Your task to perform on an android device: star an email in the gmail app Image 0: 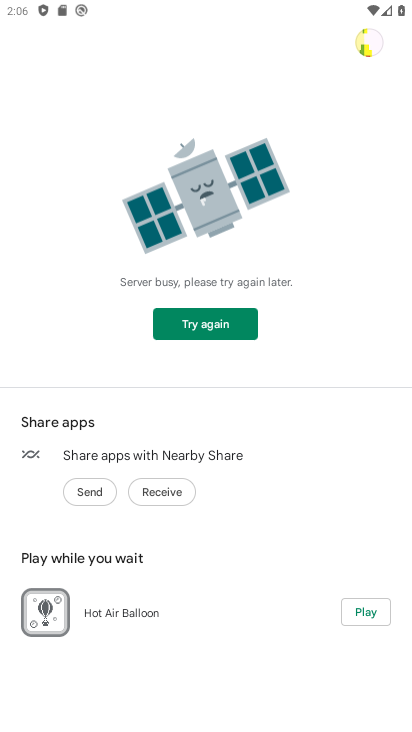
Step 0: press home button
Your task to perform on an android device: star an email in the gmail app Image 1: 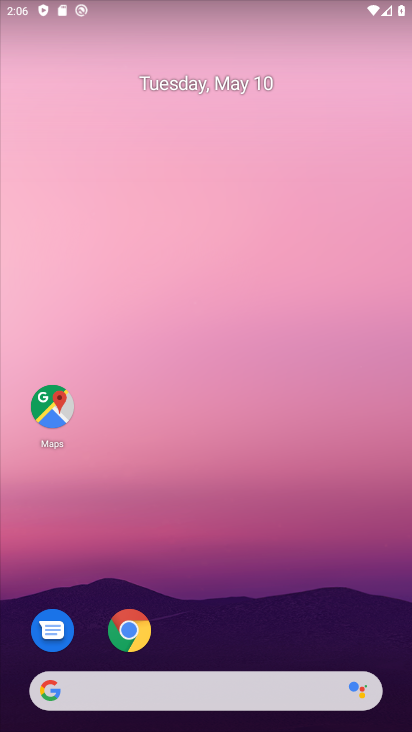
Step 1: drag from (255, 637) to (309, 77)
Your task to perform on an android device: star an email in the gmail app Image 2: 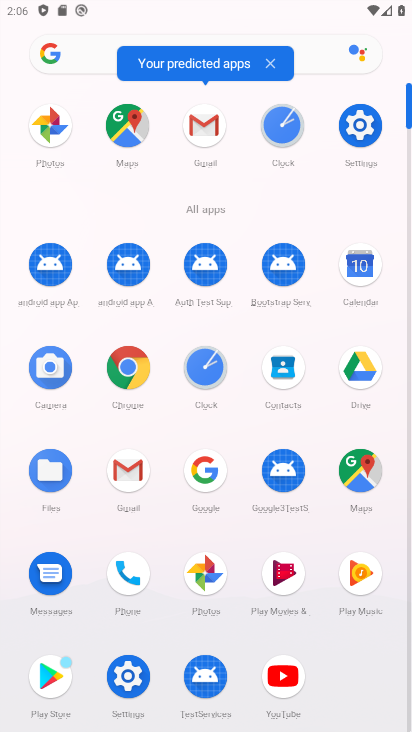
Step 2: drag from (122, 467) to (51, 215)
Your task to perform on an android device: star an email in the gmail app Image 3: 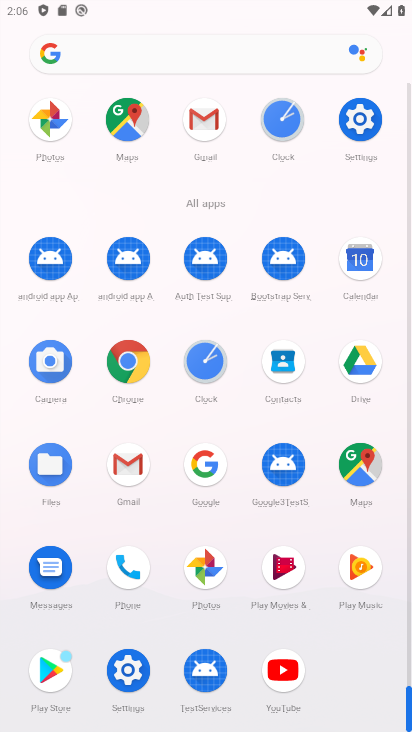
Step 3: drag from (118, 450) to (52, 169)
Your task to perform on an android device: star an email in the gmail app Image 4: 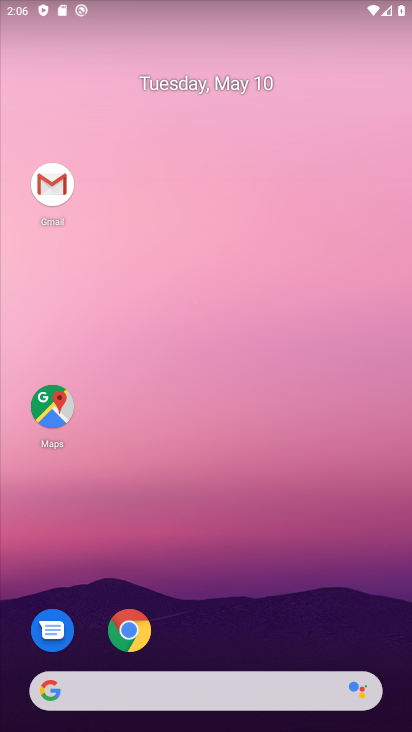
Step 4: click (49, 182)
Your task to perform on an android device: star an email in the gmail app Image 5: 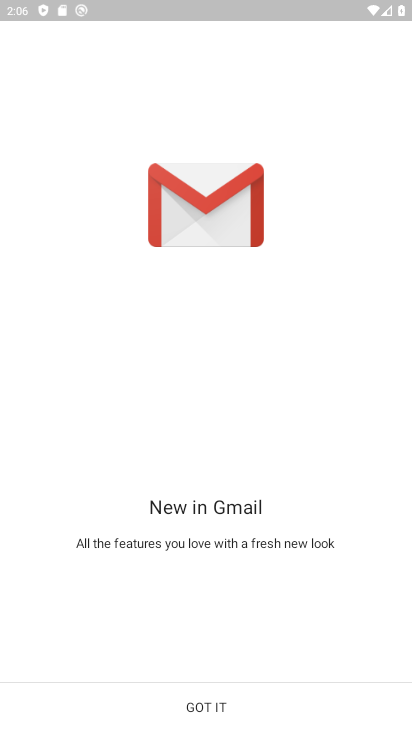
Step 5: click (221, 696)
Your task to perform on an android device: star an email in the gmail app Image 6: 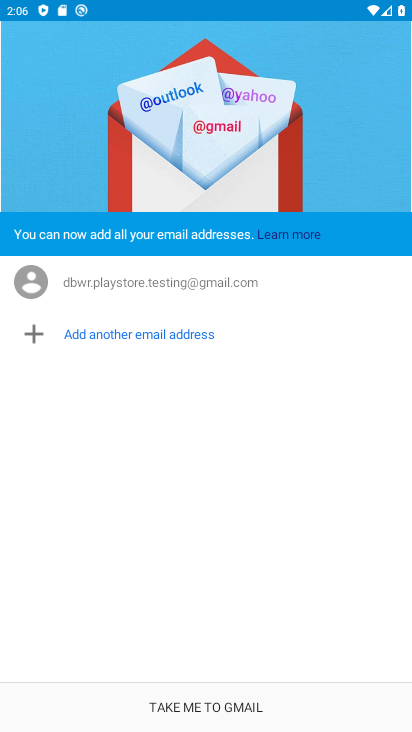
Step 6: click (279, 704)
Your task to perform on an android device: star an email in the gmail app Image 7: 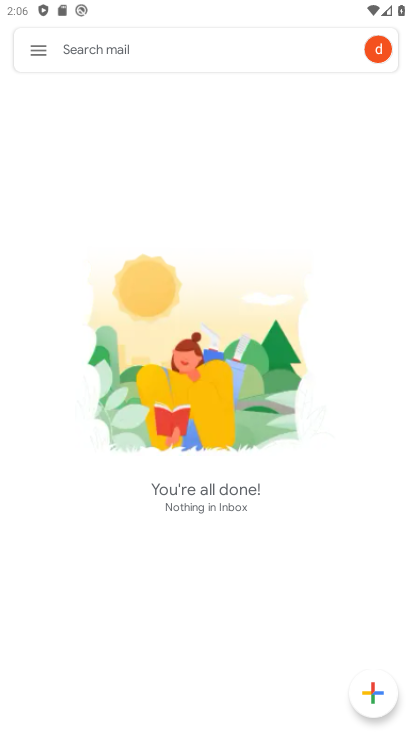
Step 7: click (31, 57)
Your task to perform on an android device: star an email in the gmail app Image 8: 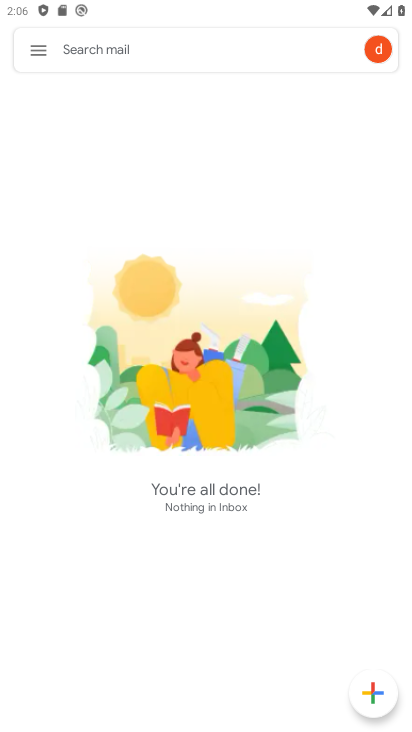
Step 8: click (43, 51)
Your task to perform on an android device: star an email in the gmail app Image 9: 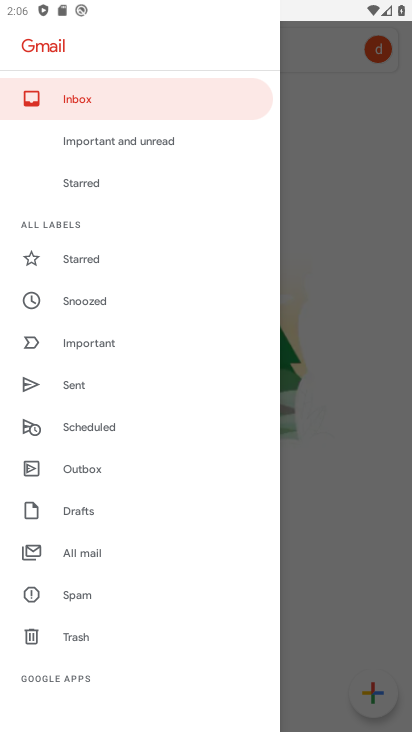
Step 9: click (117, 555)
Your task to perform on an android device: star an email in the gmail app Image 10: 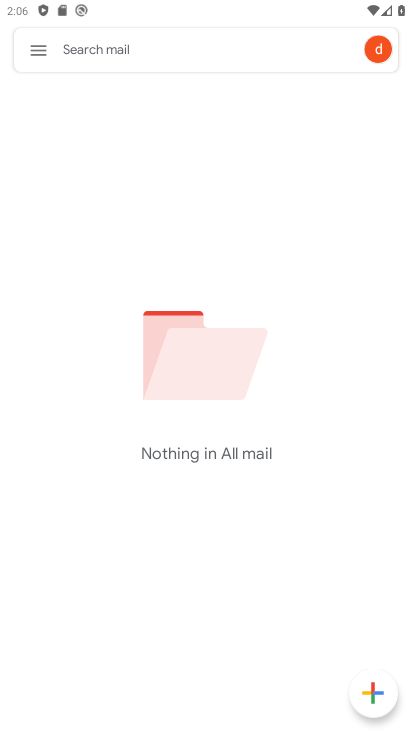
Step 10: task complete